Your task to perform on an android device: turn on the 12-hour format for clock Image 0: 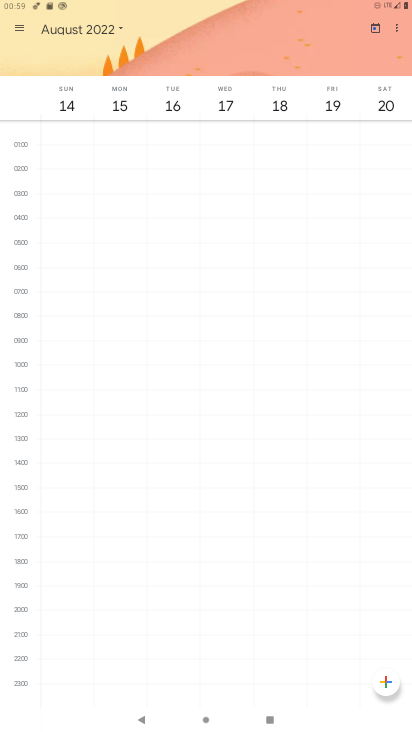
Step 0: press home button
Your task to perform on an android device: turn on the 12-hour format for clock Image 1: 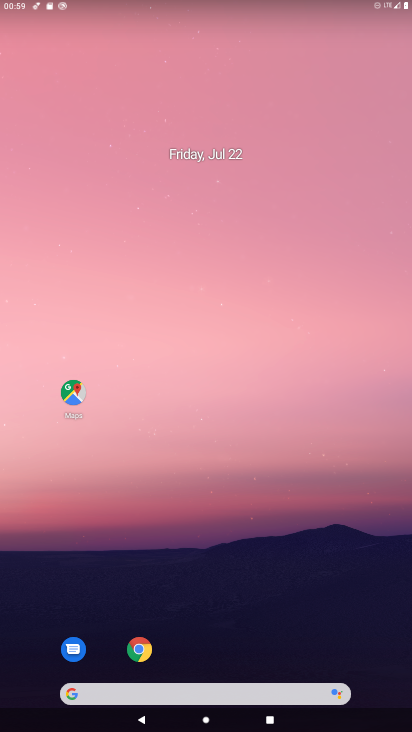
Step 1: drag from (222, 726) to (228, 304)
Your task to perform on an android device: turn on the 12-hour format for clock Image 2: 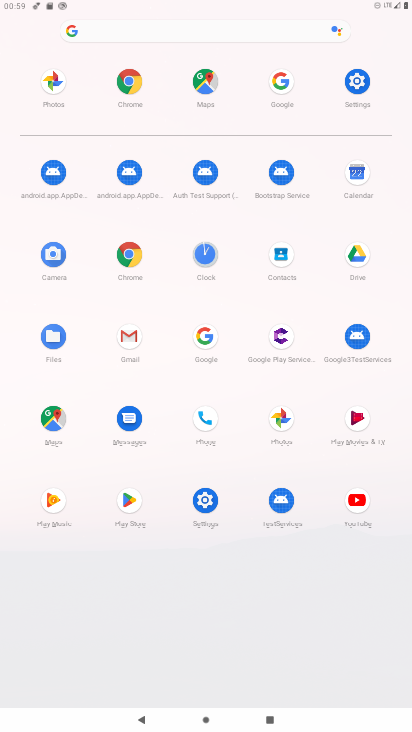
Step 2: click (201, 259)
Your task to perform on an android device: turn on the 12-hour format for clock Image 3: 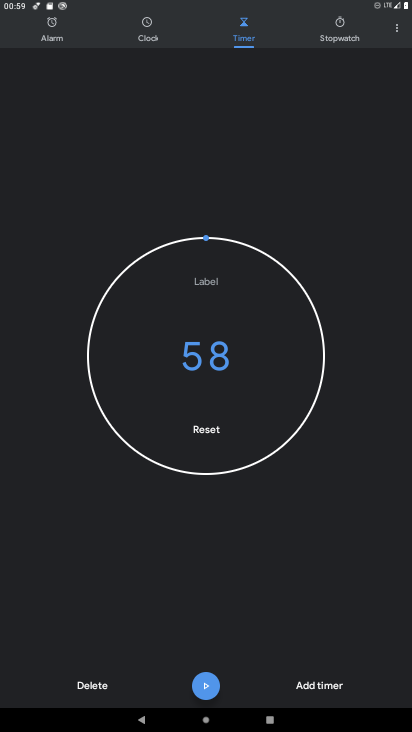
Step 3: click (400, 27)
Your task to perform on an android device: turn on the 12-hour format for clock Image 4: 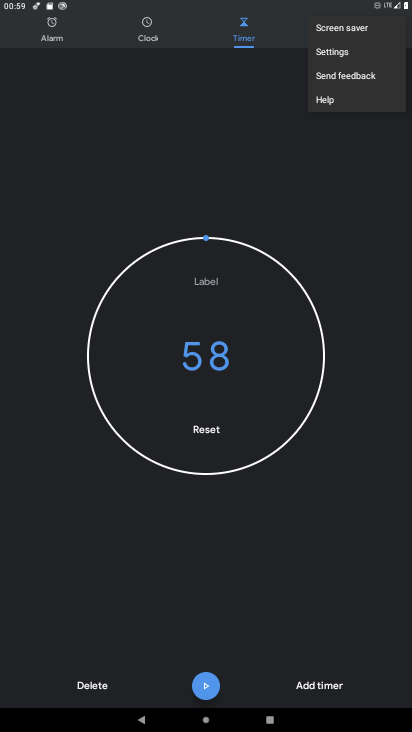
Step 4: click (338, 51)
Your task to perform on an android device: turn on the 12-hour format for clock Image 5: 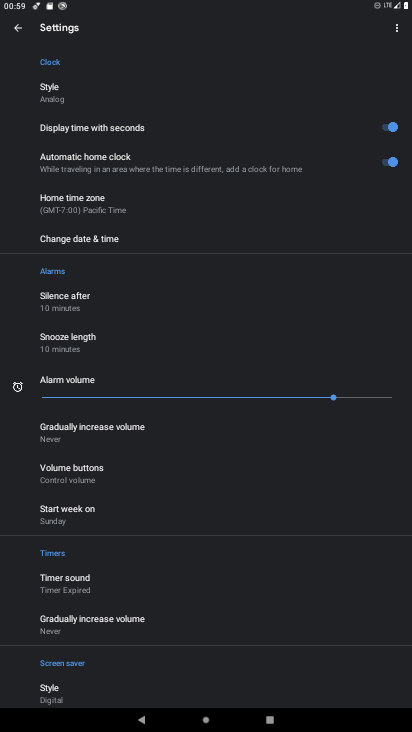
Step 5: click (99, 238)
Your task to perform on an android device: turn on the 12-hour format for clock Image 6: 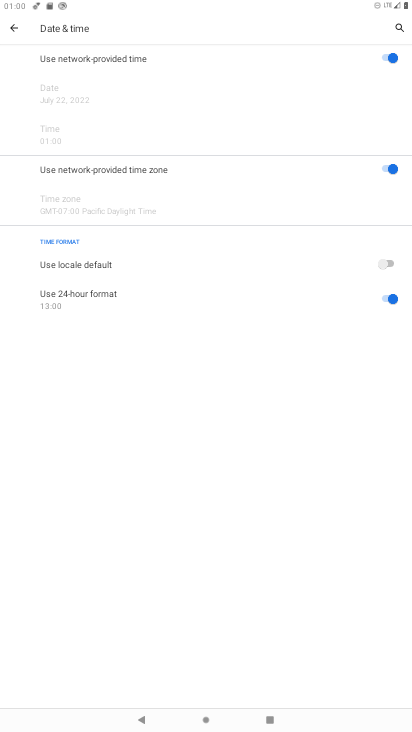
Step 6: click (381, 298)
Your task to perform on an android device: turn on the 12-hour format for clock Image 7: 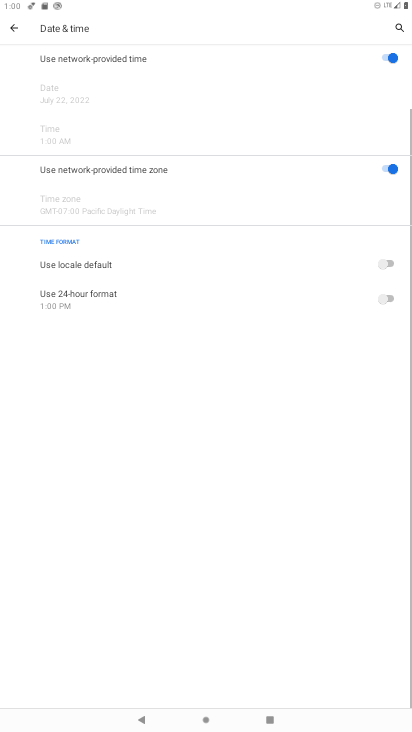
Step 7: click (393, 260)
Your task to perform on an android device: turn on the 12-hour format for clock Image 8: 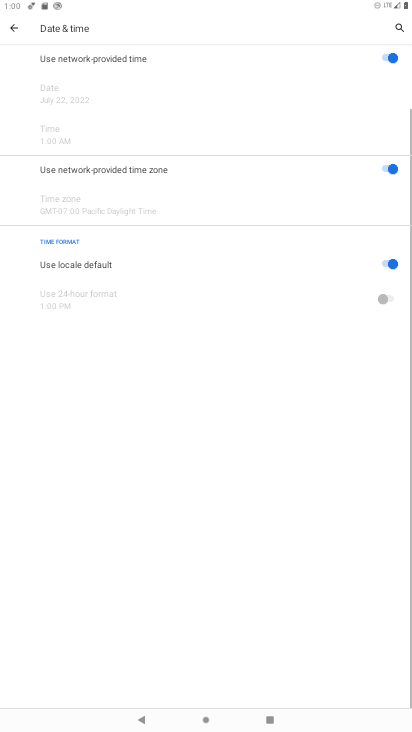
Step 8: task complete